Your task to perform on an android device: turn off picture-in-picture Image 0: 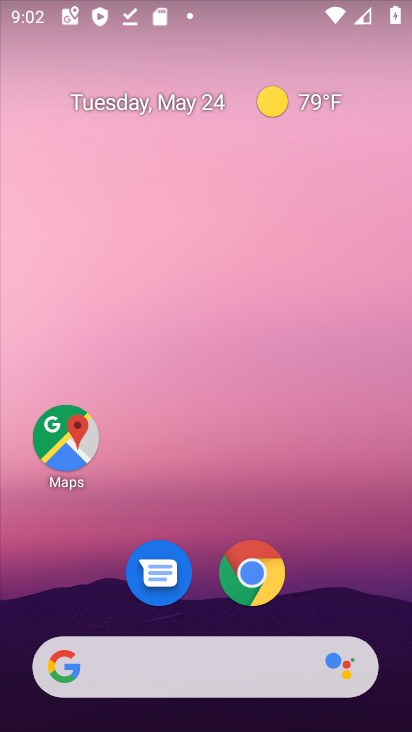
Step 0: drag from (350, 600) to (204, 8)
Your task to perform on an android device: turn off picture-in-picture Image 1: 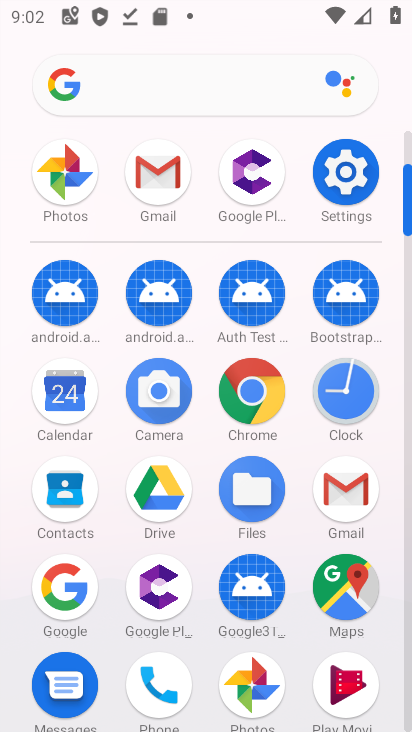
Step 1: click (249, 392)
Your task to perform on an android device: turn off picture-in-picture Image 2: 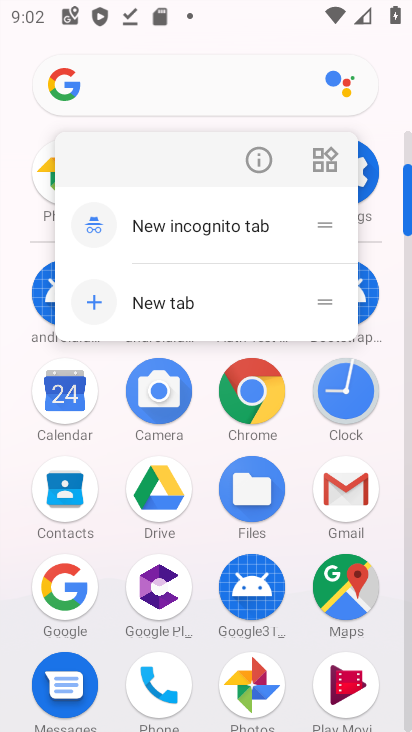
Step 2: click (257, 161)
Your task to perform on an android device: turn off picture-in-picture Image 3: 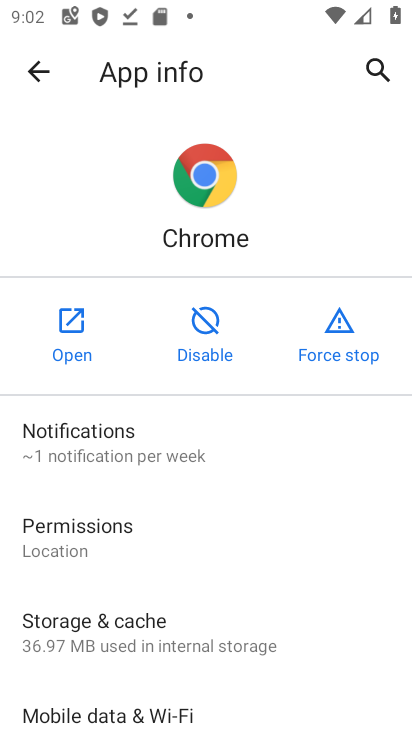
Step 3: drag from (171, 593) to (165, 157)
Your task to perform on an android device: turn off picture-in-picture Image 4: 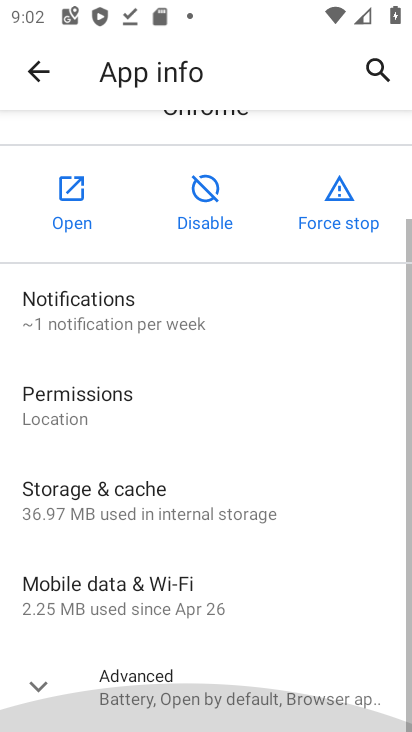
Step 4: drag from (216, 478) to (204, 203)
Your task to perform on an android device: turn off picture-in-picture Image 5: 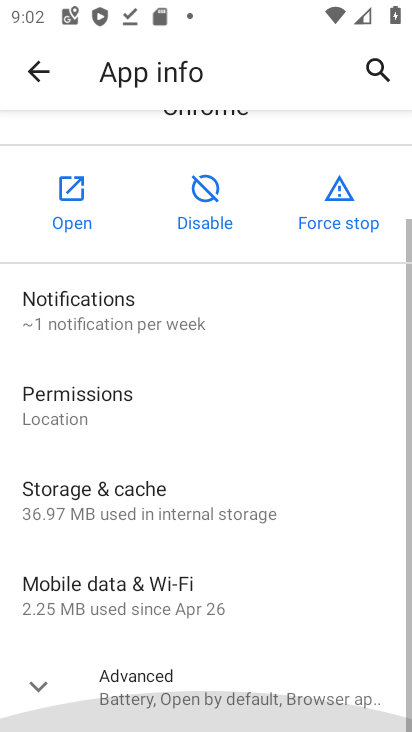
Step 5: drag from (202, 440) to (269, 106)
Your task to perform on an android device: turn off picture-in-picture Image 6: 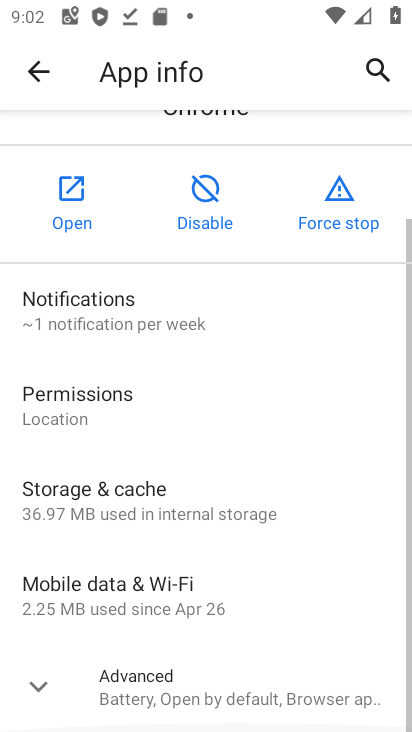
Step 6: click (151, 694)
Your task to perform on an android device: turn off picture-in-picture Image 7: 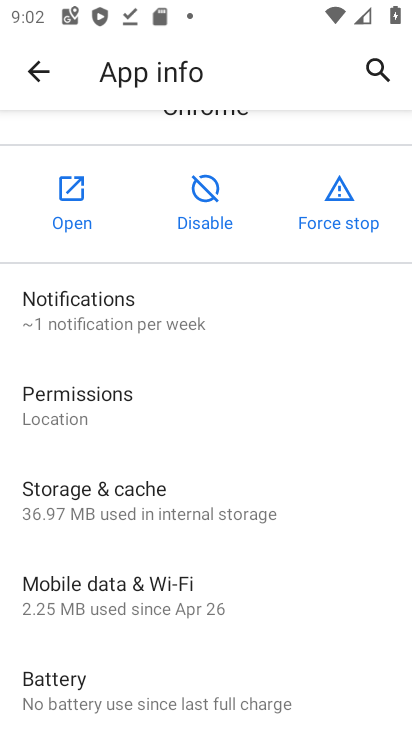
Step 7: drag from (71, 588) to (64, 222)
Your task to perform on an android device: turn off picture-in-picture Image 8: 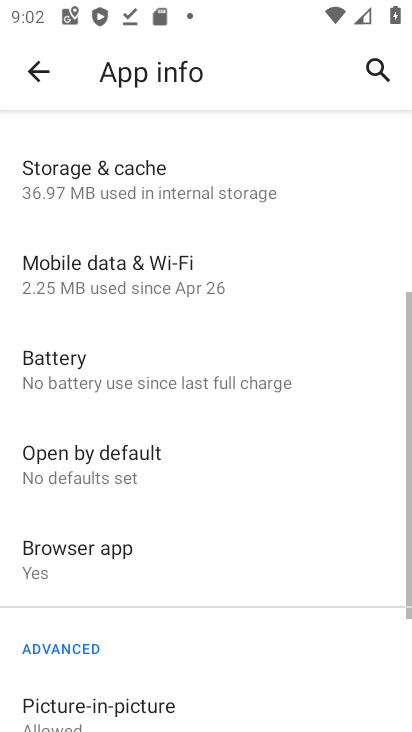
Step 8: drag from (87, 510) to (20, 323)
Your task to perform on an android device: turn off picture-in-picture Image 9: 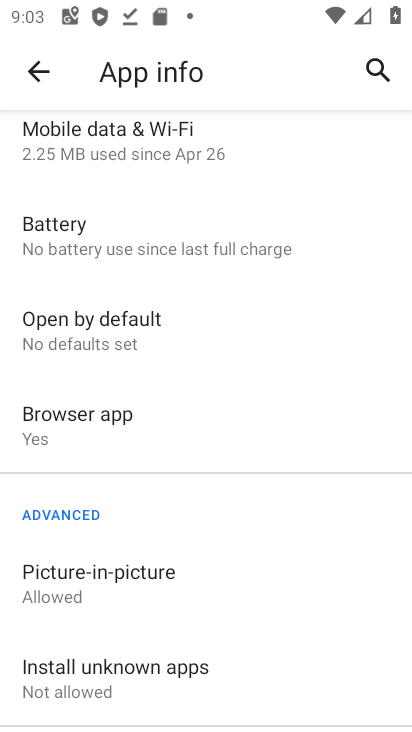
Step 9: click (57, 587)
Your task to perform on an android device: turn off picture-in-picture Image 10: 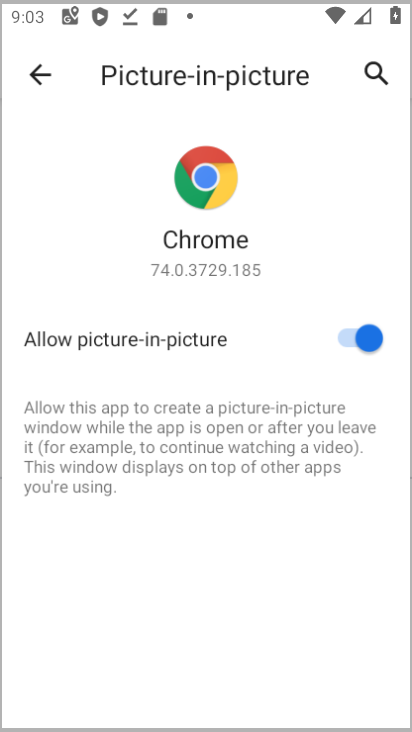
Step 10: click (63, 581)
Your task to perform on an android device: turn off picture-in-picture Image 11: 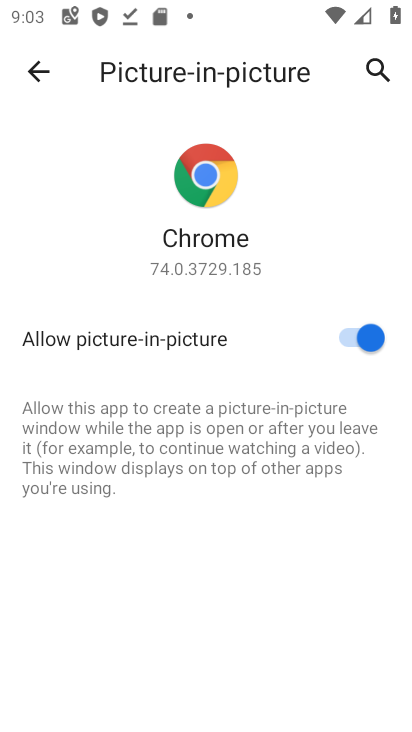
Step 11: click (370, 332)
Your task to perform on an android device: turn off picture-in-picture Image 12: 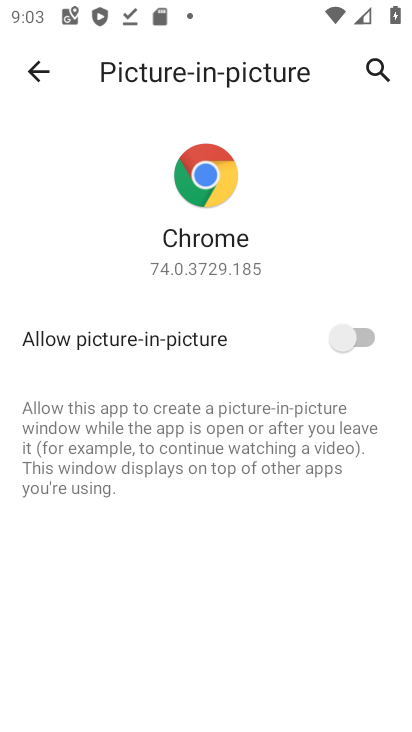
Step 12: task complete